Your task to perform on an android device: Open settings on Google Maps Image 0: 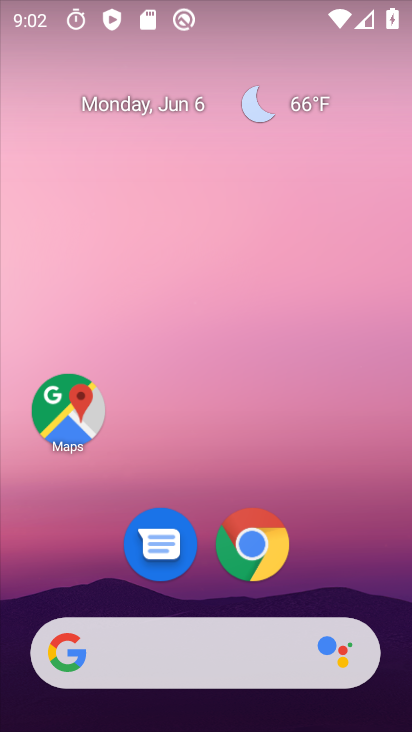
Step 0: click (65, 391)
Your task to perform on an android device: Open settings on Google Maps Image 1: 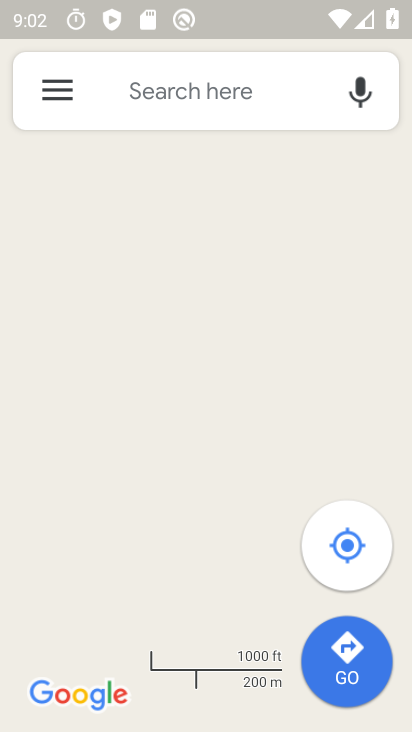
Step 1: click (44, 98)
Your task to perform on an android device: Open settings on Google Maps Image 2: 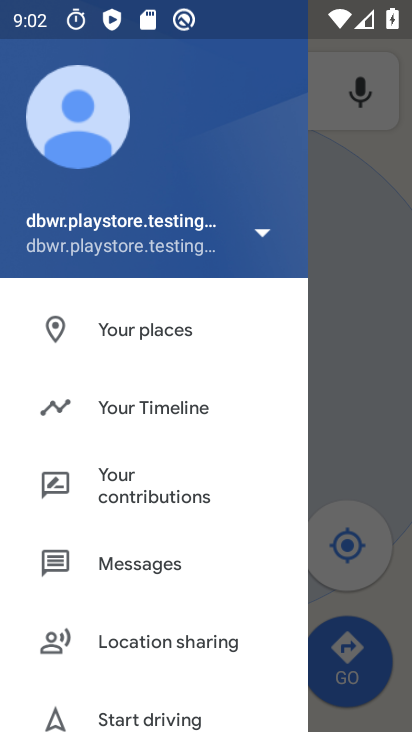
Step 2: drag from (198, 685) to (152, 217)
Your task to perform on an android device: Open settings on Google Maps Image 3: 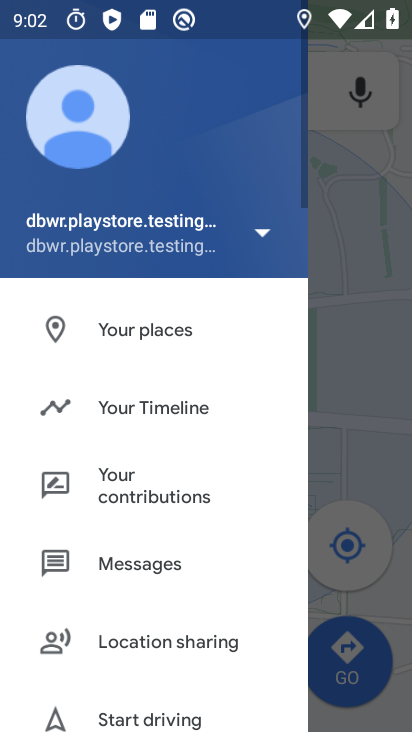
Step 3: drag from (153, 677) to (143, 316)
Your task to perform on an android device: Open settings on Google Maps Image 4: 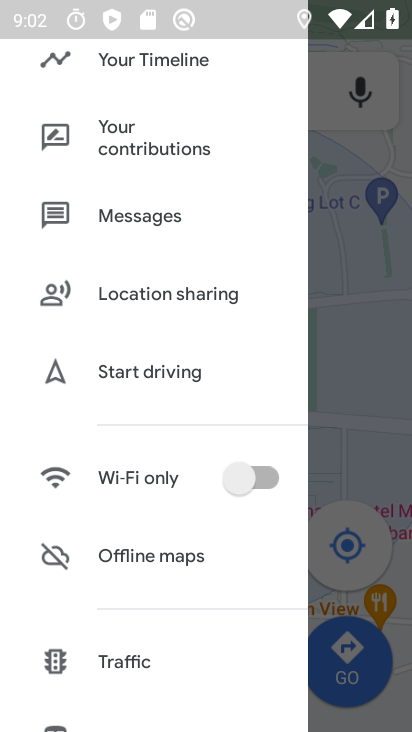
Step 4: drag from (132, 621) to (89, 127)
Your task to perform on an android device: Open settings on Google Maps Image 5: 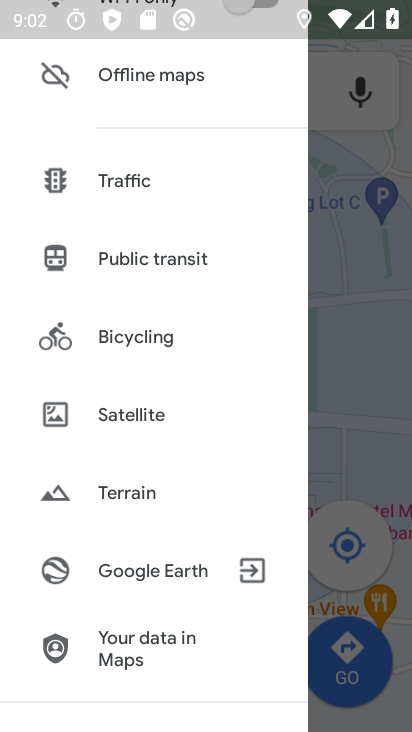
Step 5: drag from (136, 702) to (83, 166)
Your task to perform on an android device: Open settings on Google Maps Image 6: 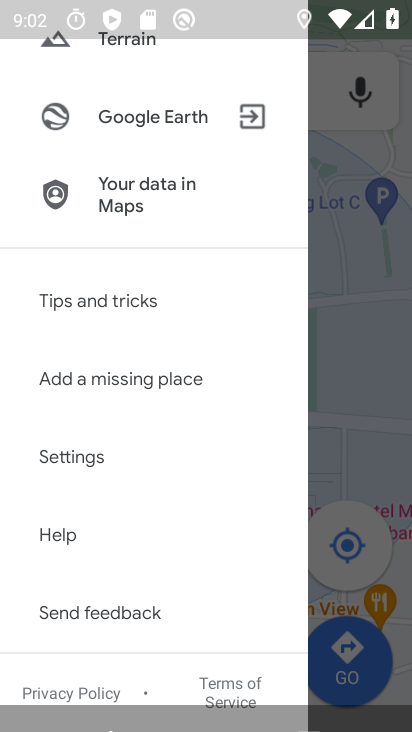
Step 6: click (92, 456)
Your task to perform on an android device: Open settings on Google Maps Image 7: 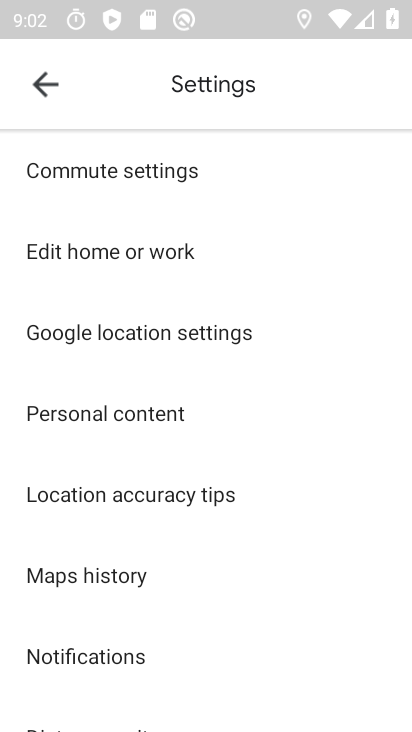
Step 7: task complete